Your task to perform on an android device: Open Google Maps Image 0: 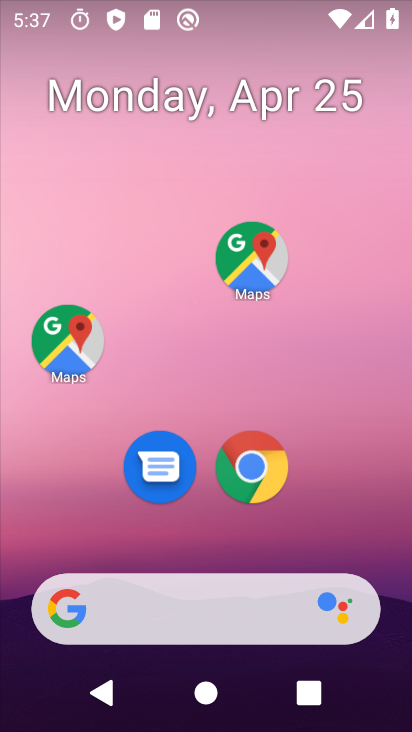
Step 0: drag from (238, 579) to (243, 9)
Your task to perform on an android device: Open Google Maps Image 1: 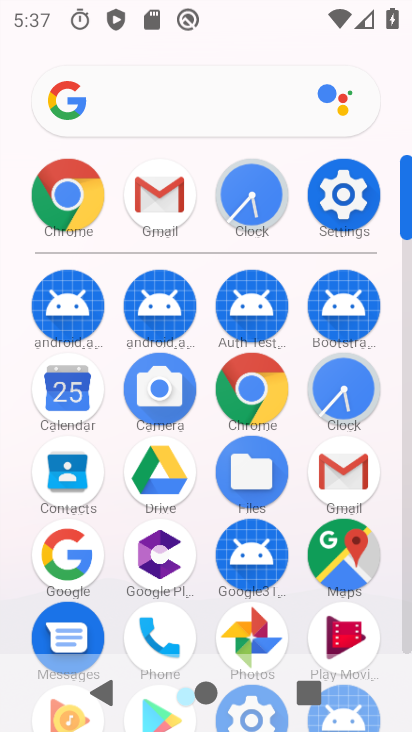
Step 1: click (365, 563)
Your task to perform on an android device: Open Google Maps Image 2: 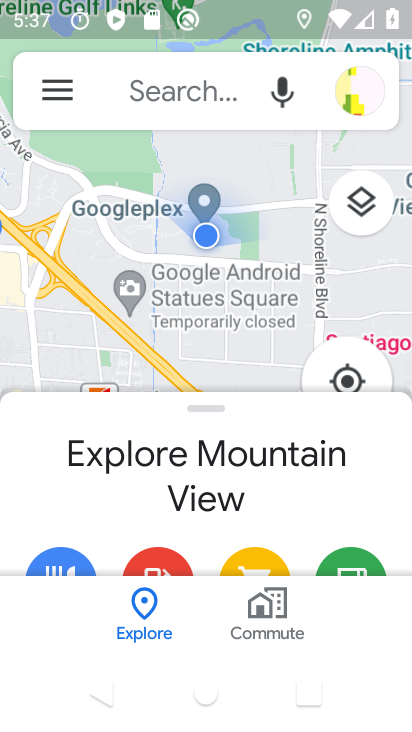
Step 2: task complete